Your task to perform on an android device: What's the weather? Image 0: 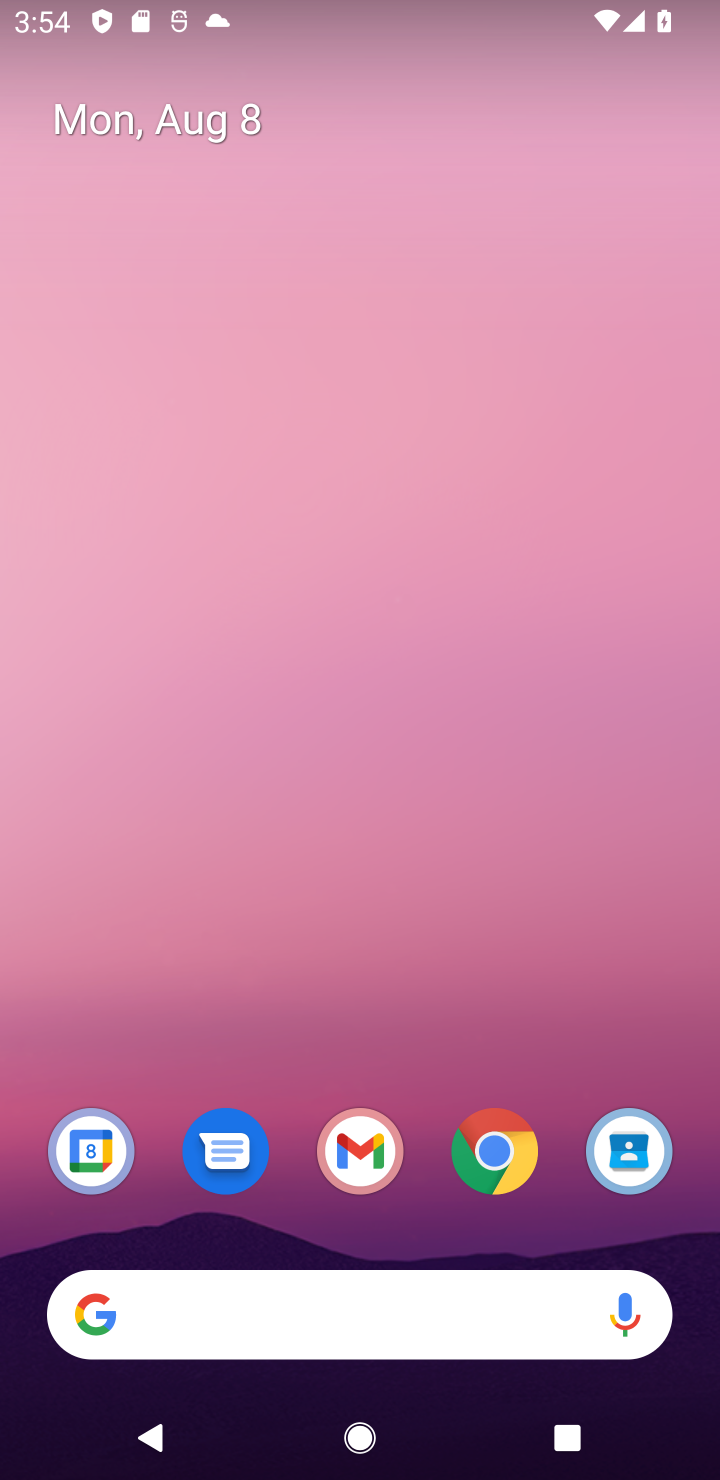
Step 0: drag from (366, 1039) to (374, 227)
Your task to perform on an android device: What's the weather? Image 1: 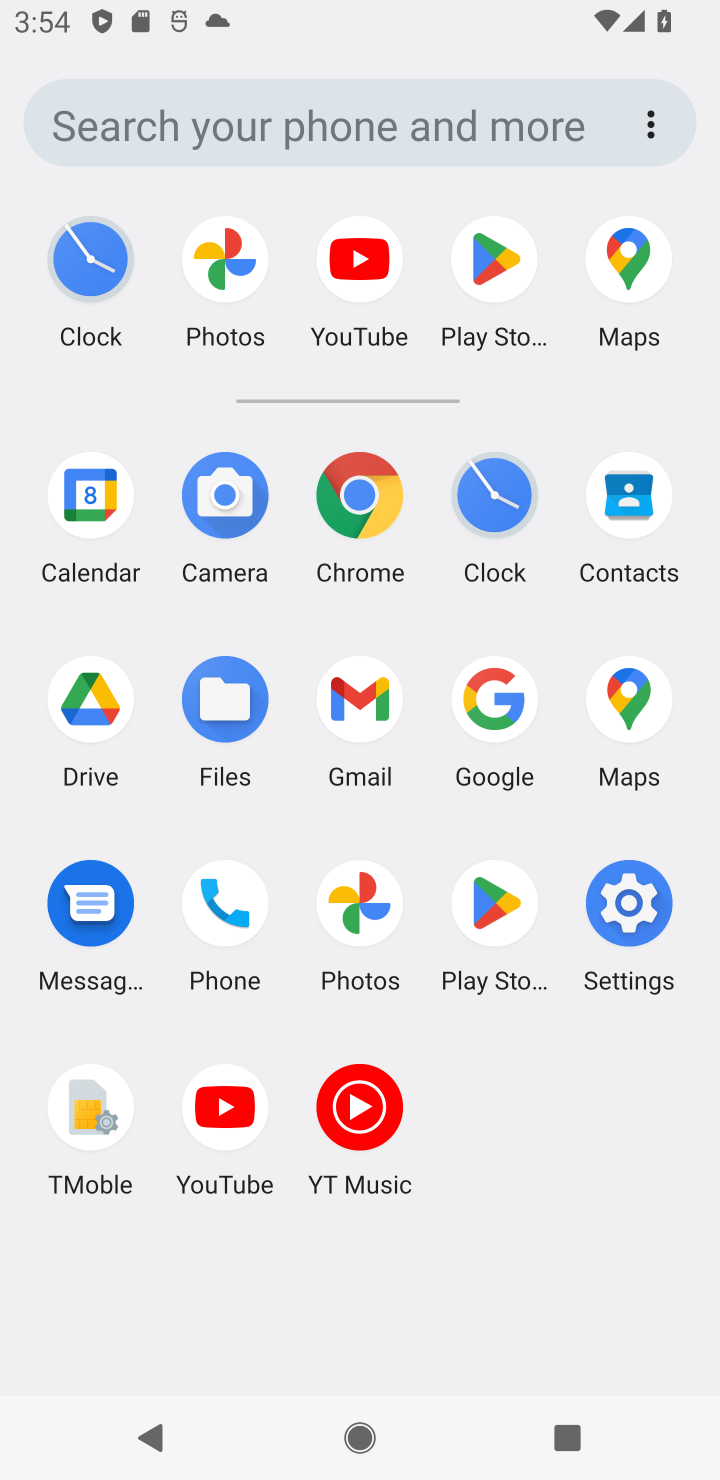
Step 1: click (511, 720)
Your task to perform on an android device: What's the weather? Image 2: 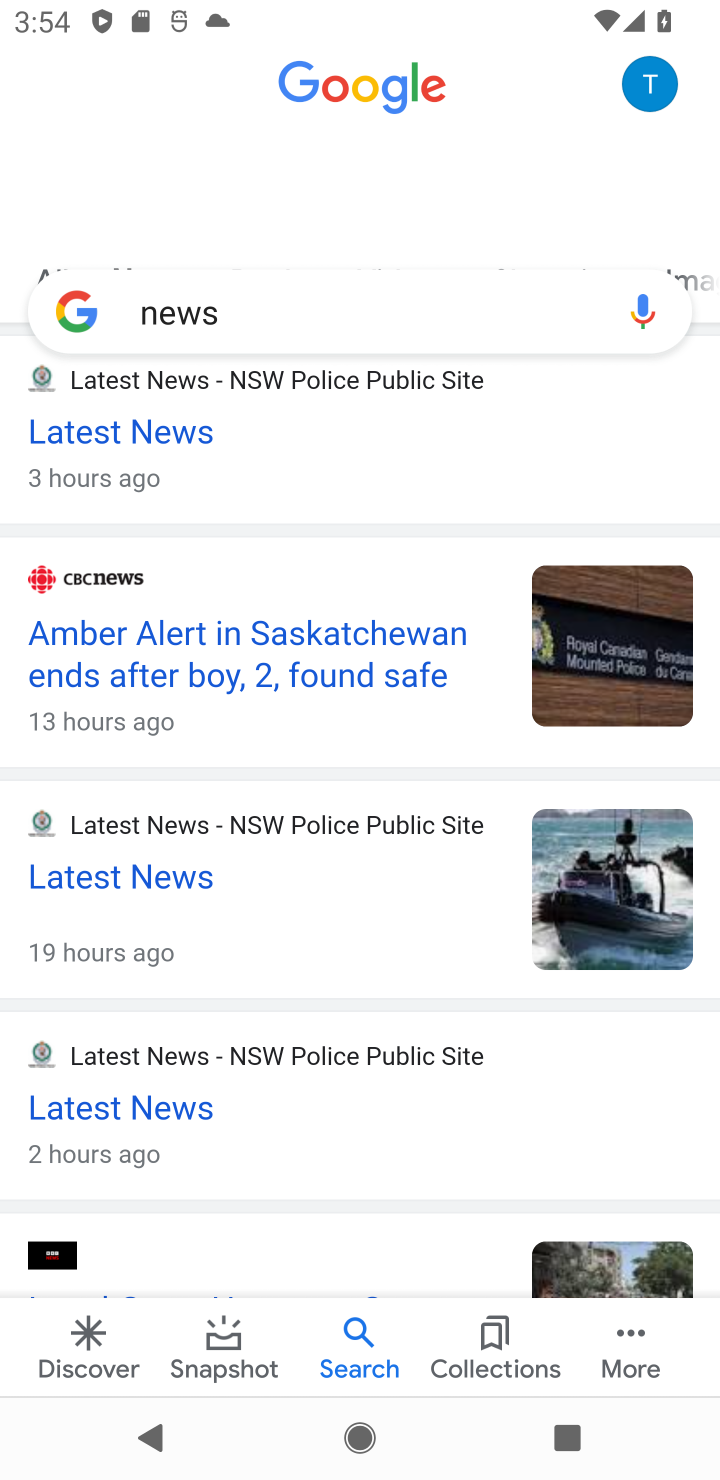
Step 2: drag from (252, 529) to (247, 1179)
Your task to perform on an android device: What's the weather? Image 3: 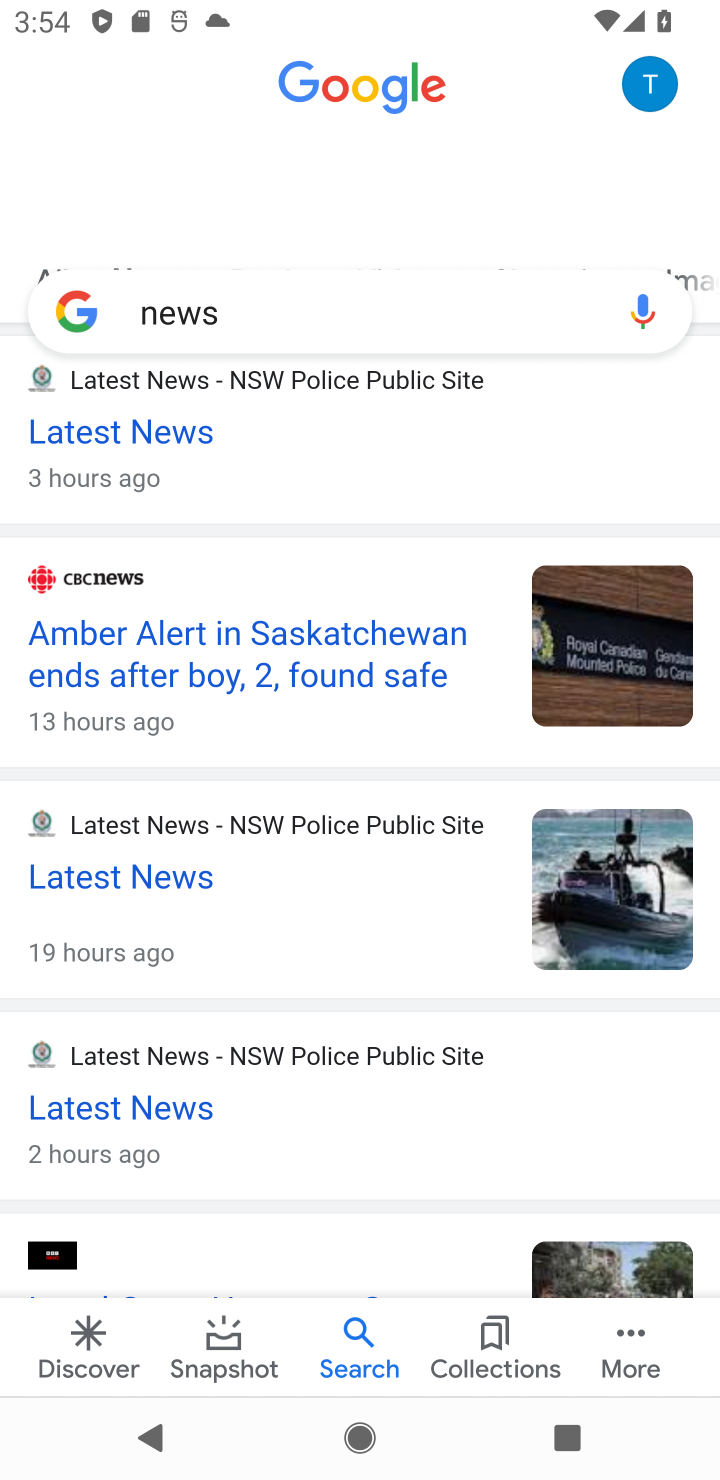
Step 3: click (333, 321)
Your task to perform on an android device: What's the weather? Image 4: 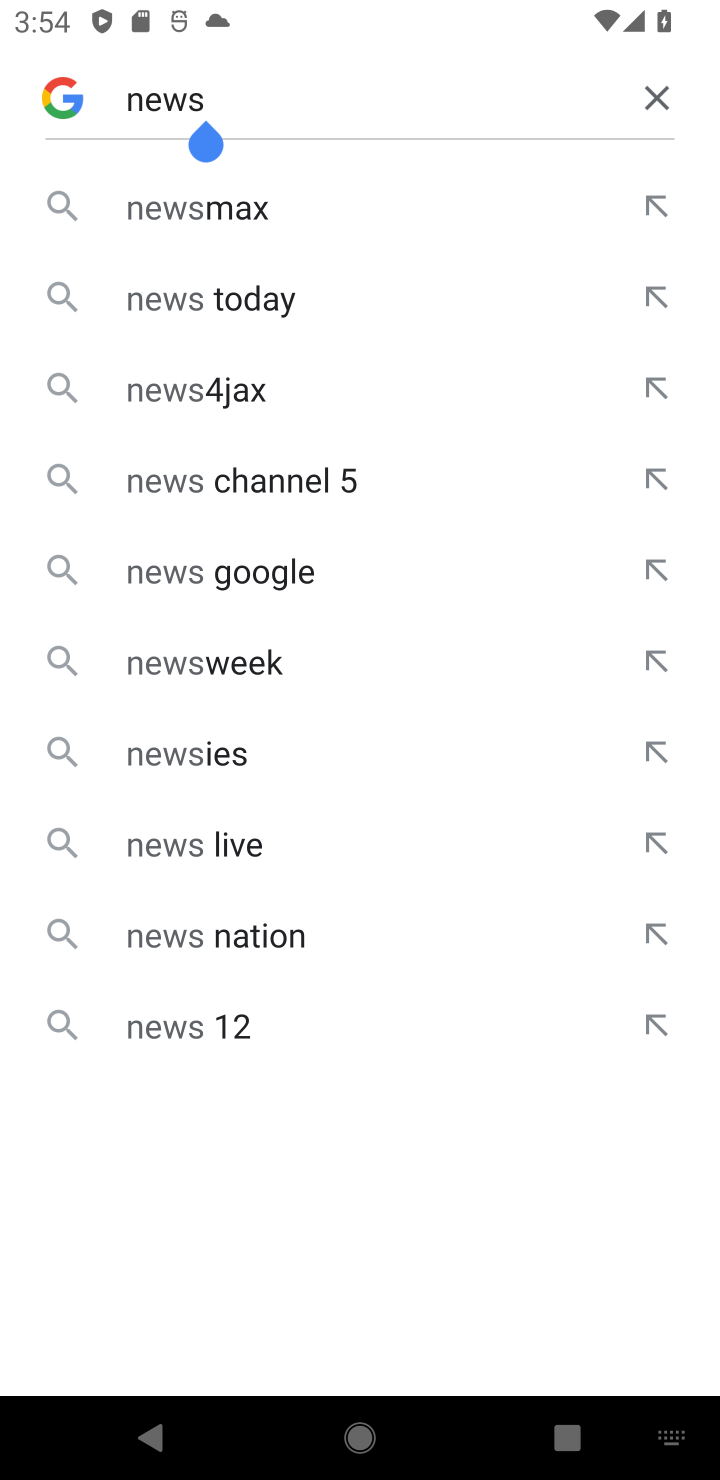
Step 4: click (647, 98)
Your task to perform on an android device: What's the weather? Image 5: 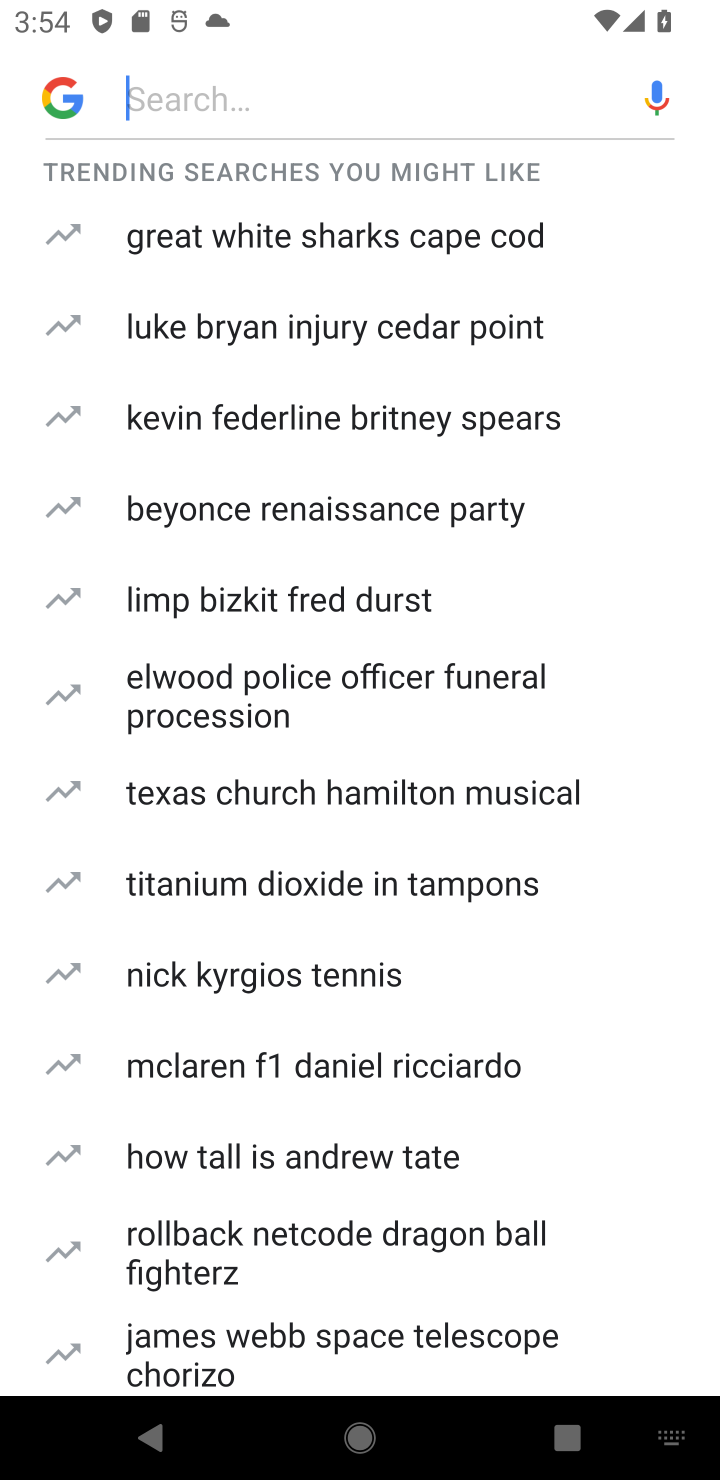
Step 5: type "weather"
Your task to perform on an android device: What's the weather? Image 6: 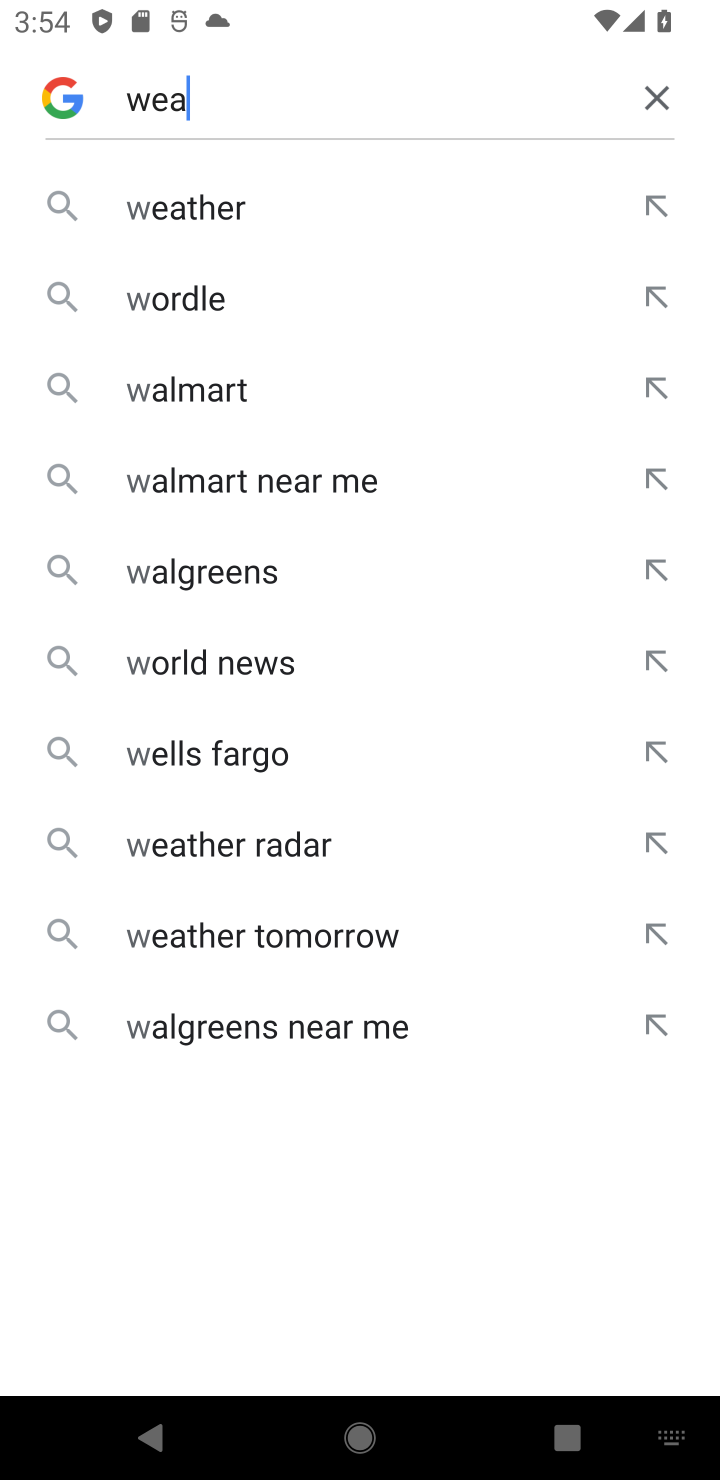
Step 6: type ""
Your task to perform on an android device: What's the weather? Image 7: 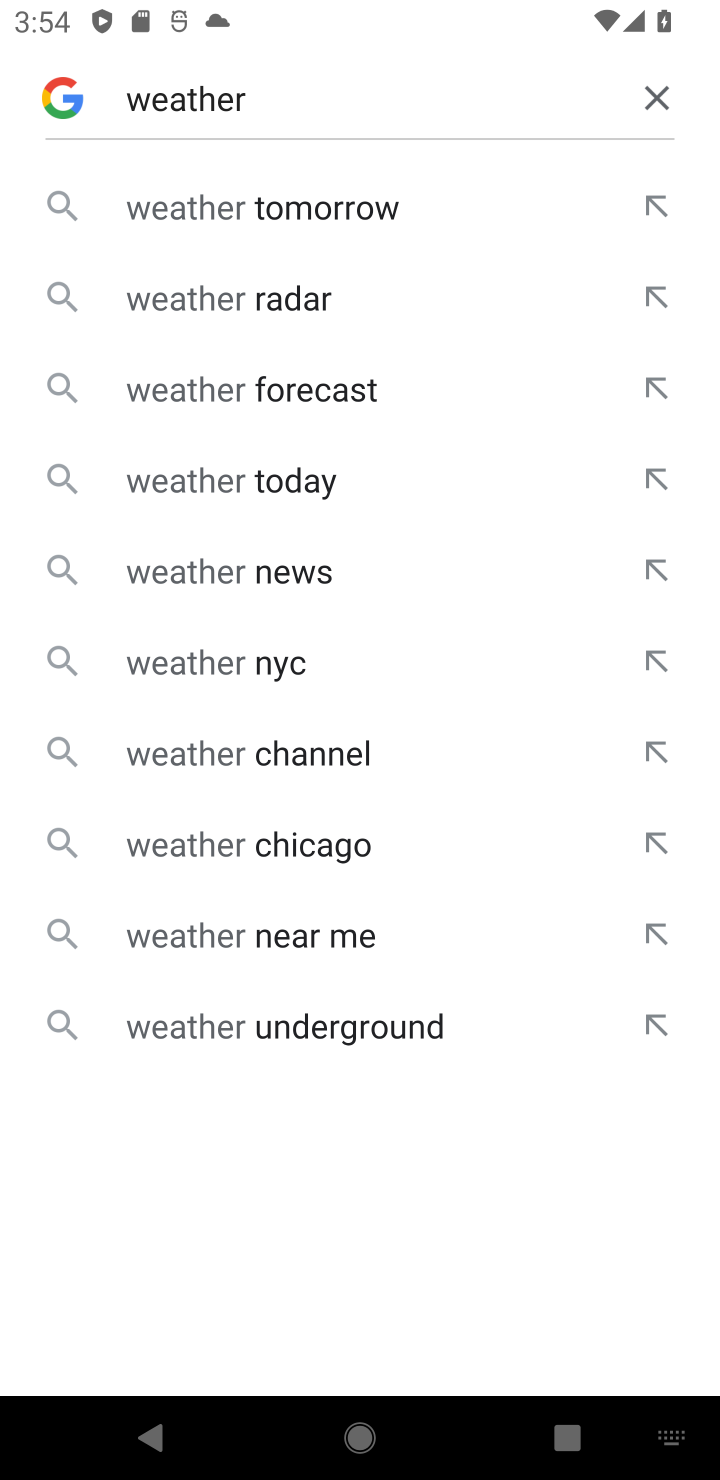
Step 7: click (232, 500)
Your task to perform on an android device: What's the weather? Image 8: 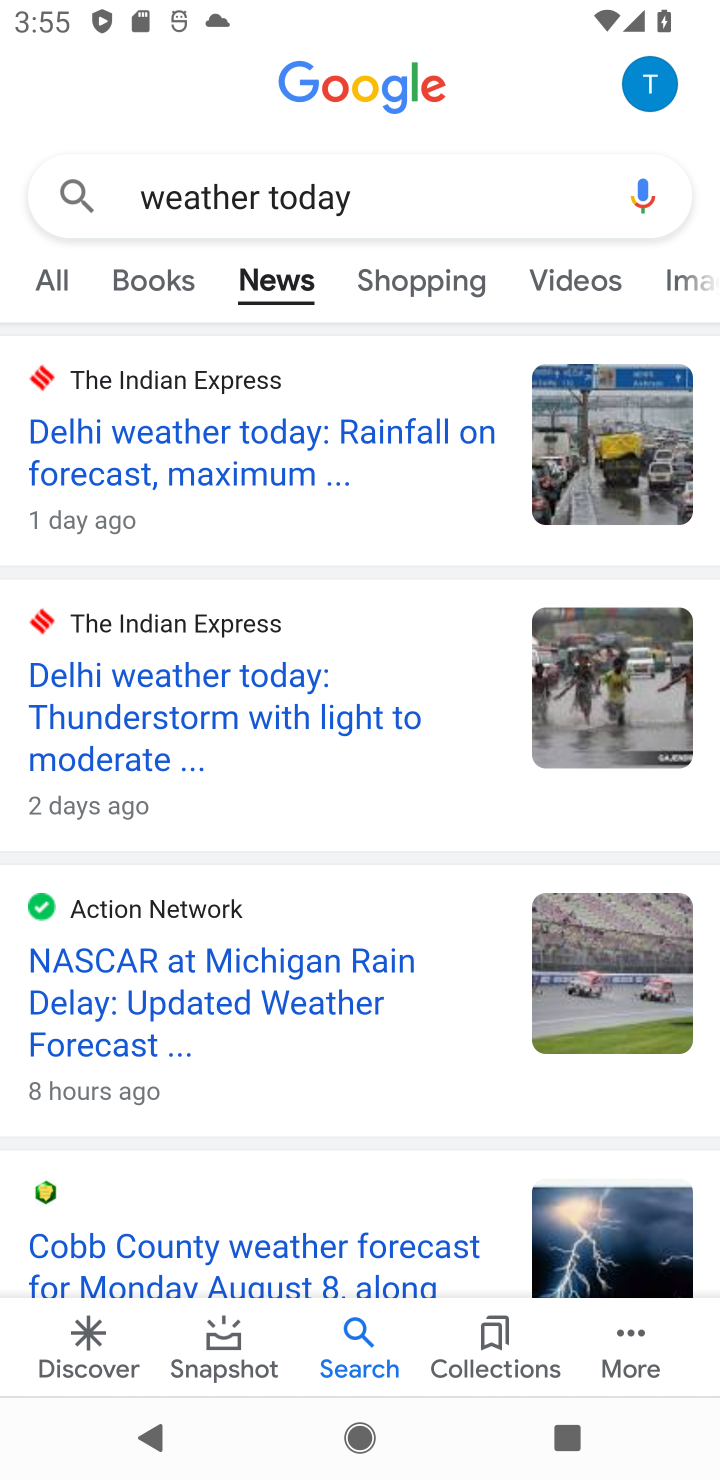
Step 8: click (75, 281)
Your task to perform on an android device: What's the weather? Image 9: 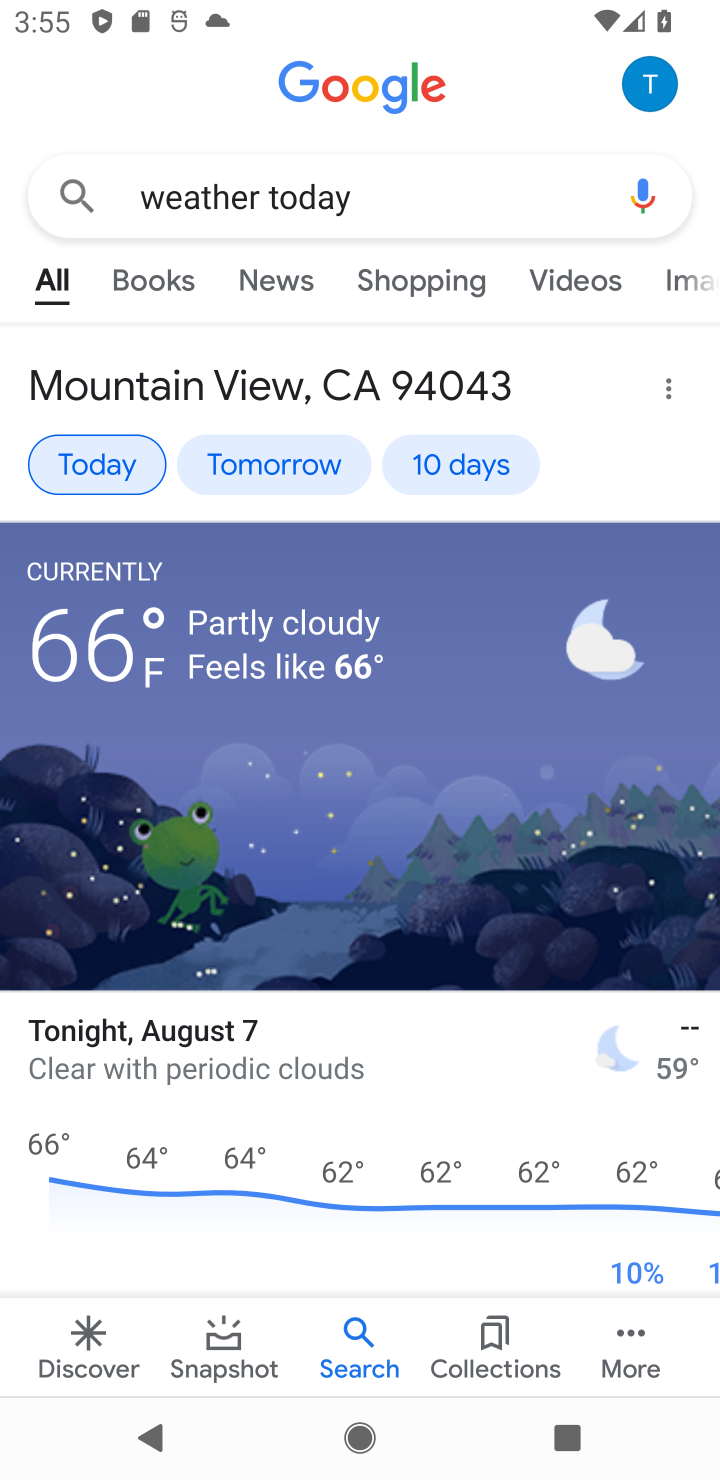
Step 9: task complete